Your task to perform on an android device: Go to Google Image 0: 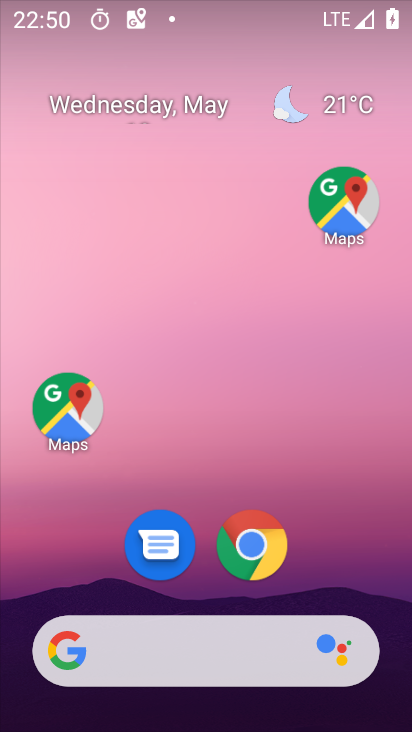
Step 0: drag from (324, 582) to (348, 119)
Your task to perform on an android device: Go to Google Image 1: 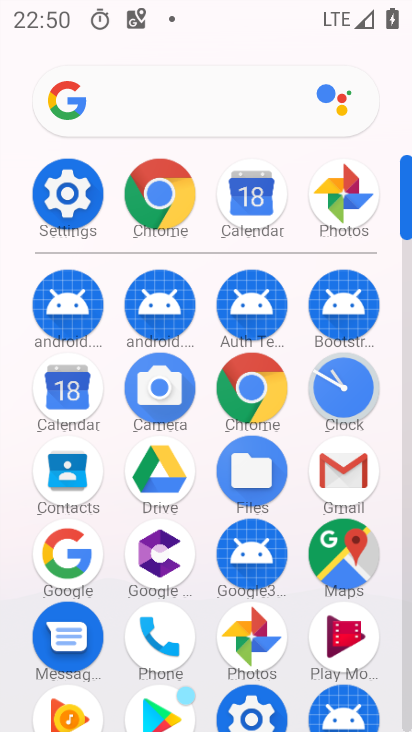
Step 1: click (66, 562)
Your task to perform on an android device: Go to Google Image 2: 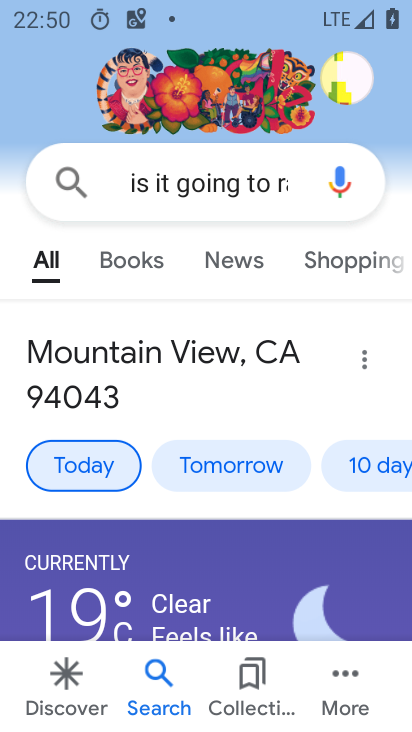
Step 2: task complete